Your task to perform on an android device: Go to Google Image 0: 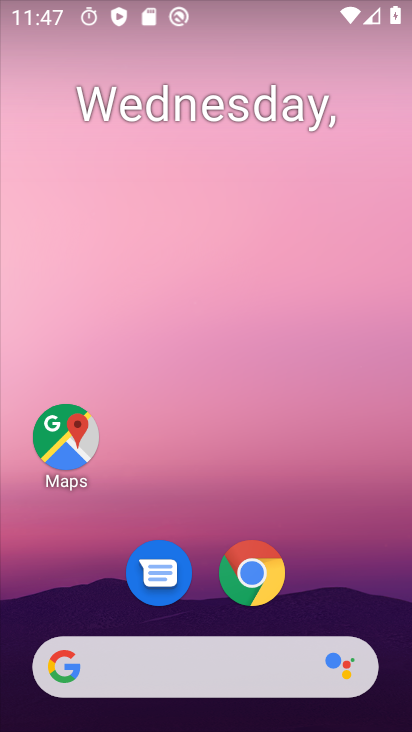
Step 0: drag from (407, 413) to (409, 179)
Your task to perform on an android device: Go to Google Image 1: 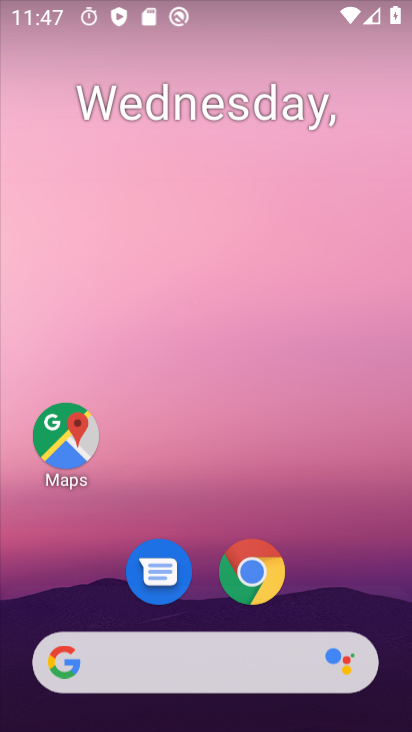
Step 1: click (344, 193)
Your task to perform on an android device: Go to Google Image 2: 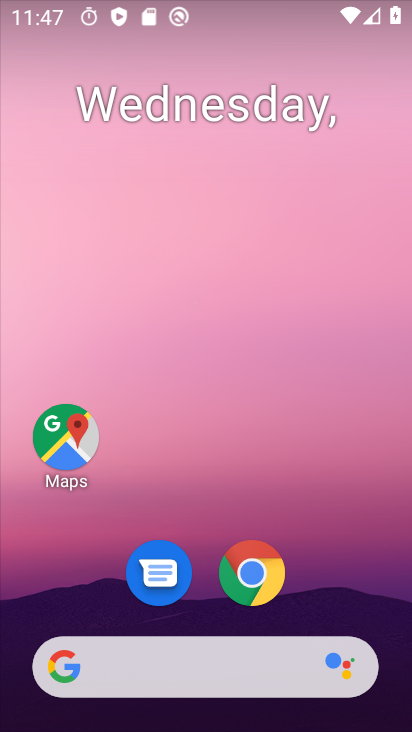
Step 2: drag from (375, 609) to (315, 234)
Your task to perform on an android device: Go to Google Image 3: 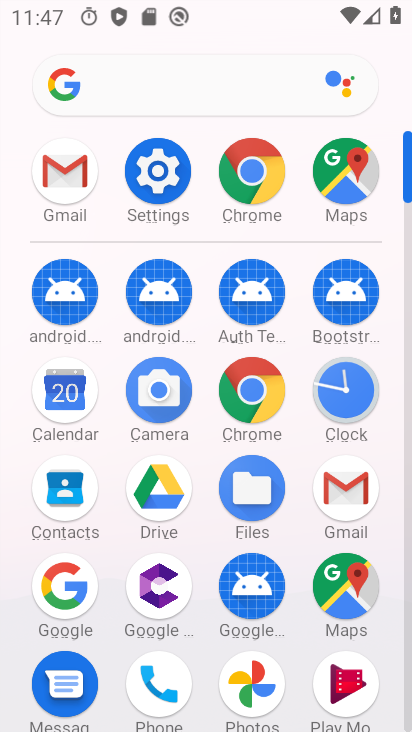
Step 3: click (60, 585)
Your task to perform on an android device: Go to Google Image 4: 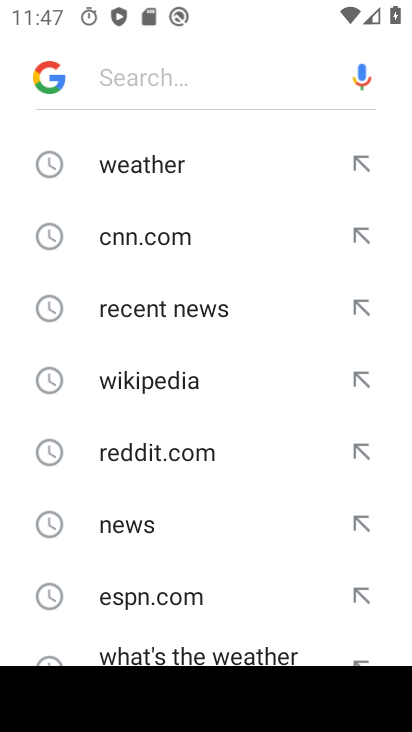
Step 4: task complete